Your task to perform on an android device: turn on javascript in the chrome app Image 0: 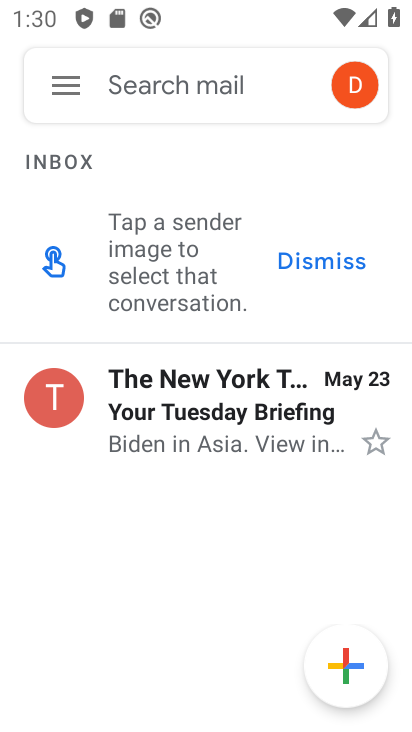
Step 0: press home button
Your task to perform on an android device: turn on javascript in the chrome app Image 1: 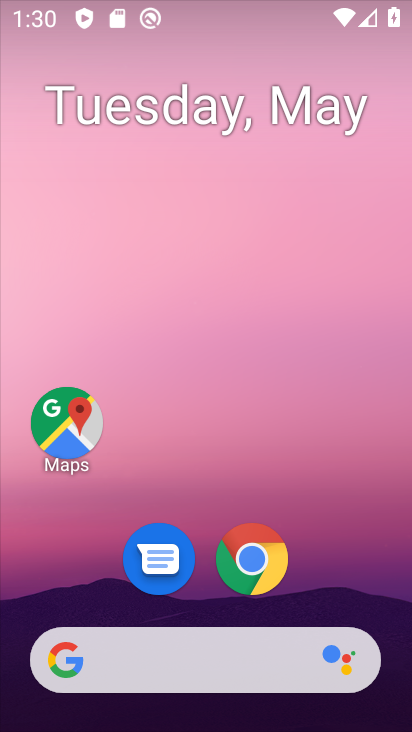
Step 1: drag from (386, 675) to (263, 84)
Your task to perform on an android device: turn on javascript in the chrome app Image 2: 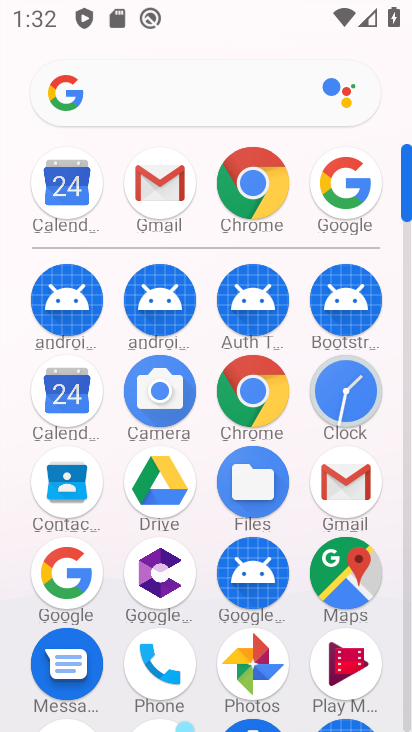
Step 2: click (245, 202)
Your task to perform on an android device: turn on javascript in the chrome app Image 3: 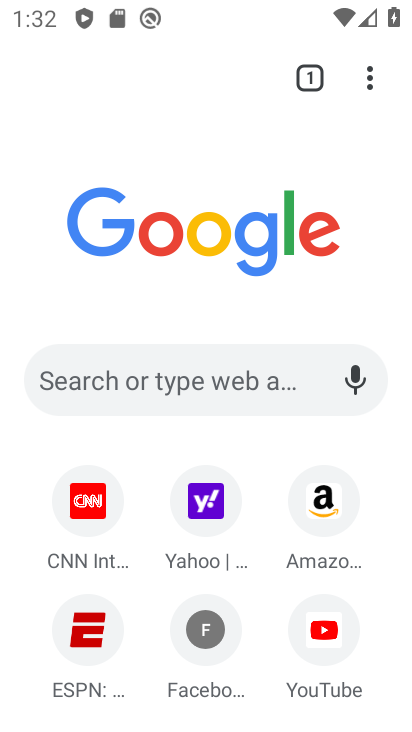
Step 3: click (382, 81)
Your task to perform on an android device: turn on javascript in the chrome app Image 4: 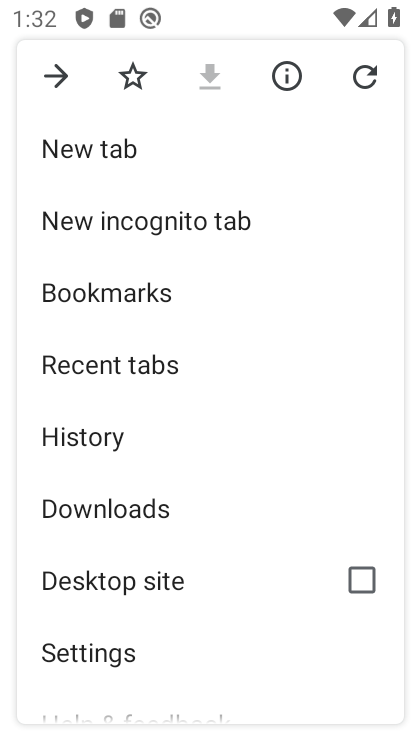
Step 4: click (205, 651)
Your task to perform on an android device: turn on javascript in the chrome app Image 5: 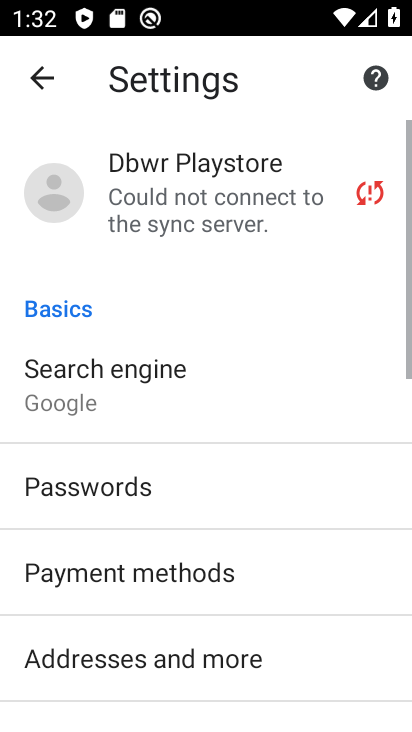
Step 5: drag from (204, 645) to (218, 224)
Your task to perform on an android device: turn on javascript in the chrome app Image 6: 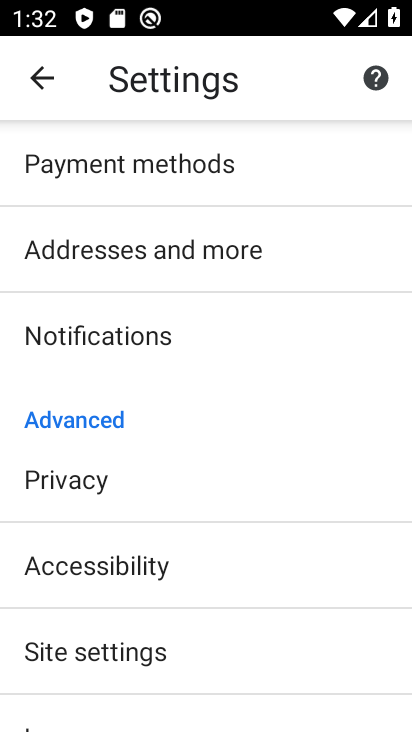
Step 6: click (149, 654)
Your task to perform on an android device: turn on javascript in the chrome app Image 7: 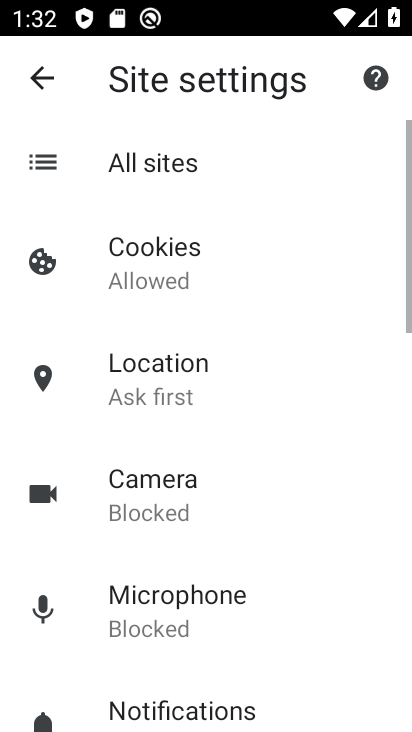
Step 7: drag from (149, 654) to (186, 239)
Your task to perform on an android device: turn on javascript in the chrome app Image 8: 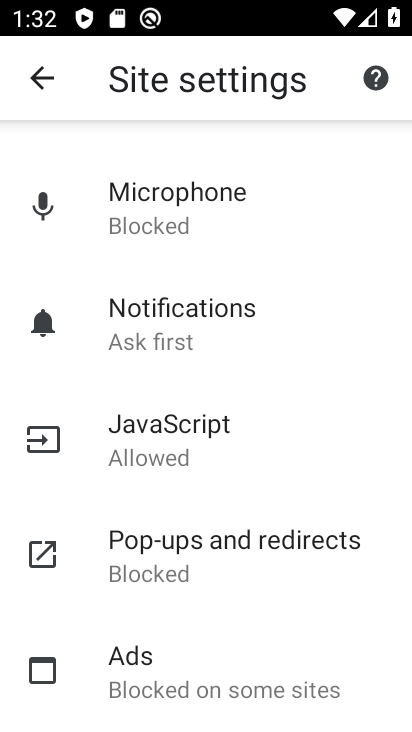
Step 8: click (189, 442)
Your task to perform on an android device: turn on javascript in the chrome app Image 9: 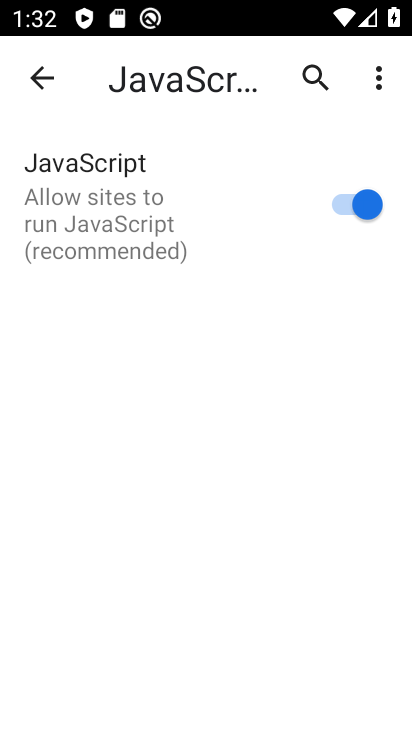
Step 9: task complete